Your task to perform on an android device: Add "panasonic triple a" to the cart on ebay.com Image 0: 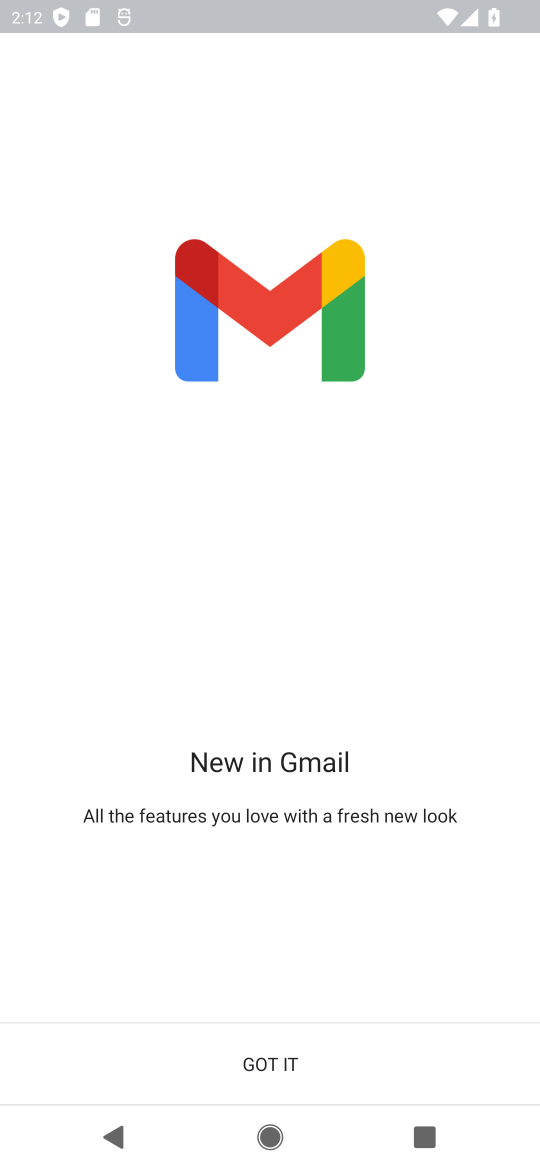
Step 0: press home button
Your task to perform on an android device: Add "panasonic triple a" to the cart on ebay.com Image 1: 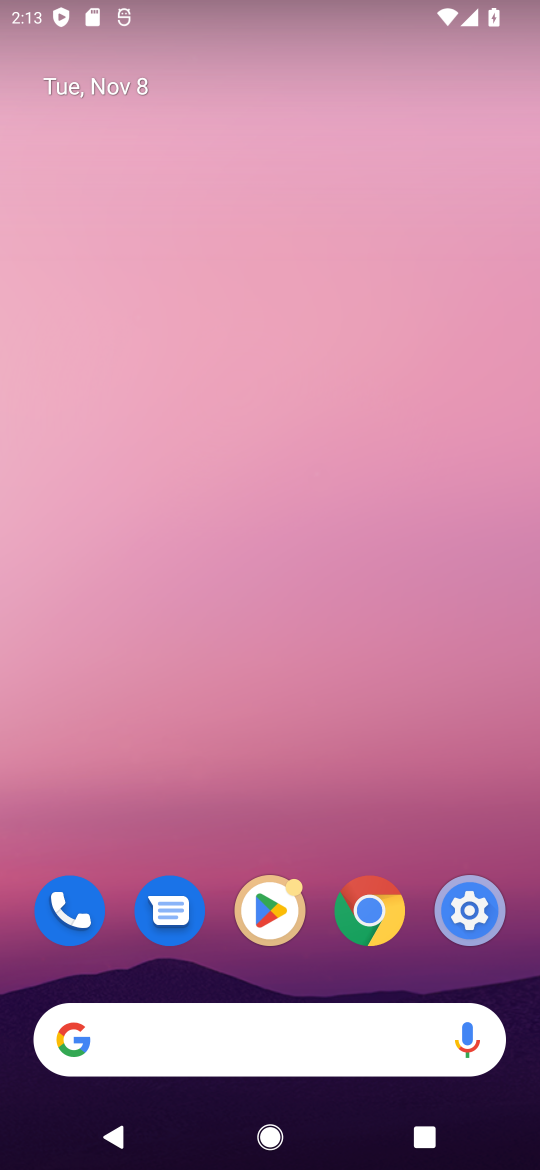
Step 1: drag from (324, 993) to (390, 96)
Your task to perform on an android device: Add "panasonic triple a" to the cart on ebay.com Image 2: 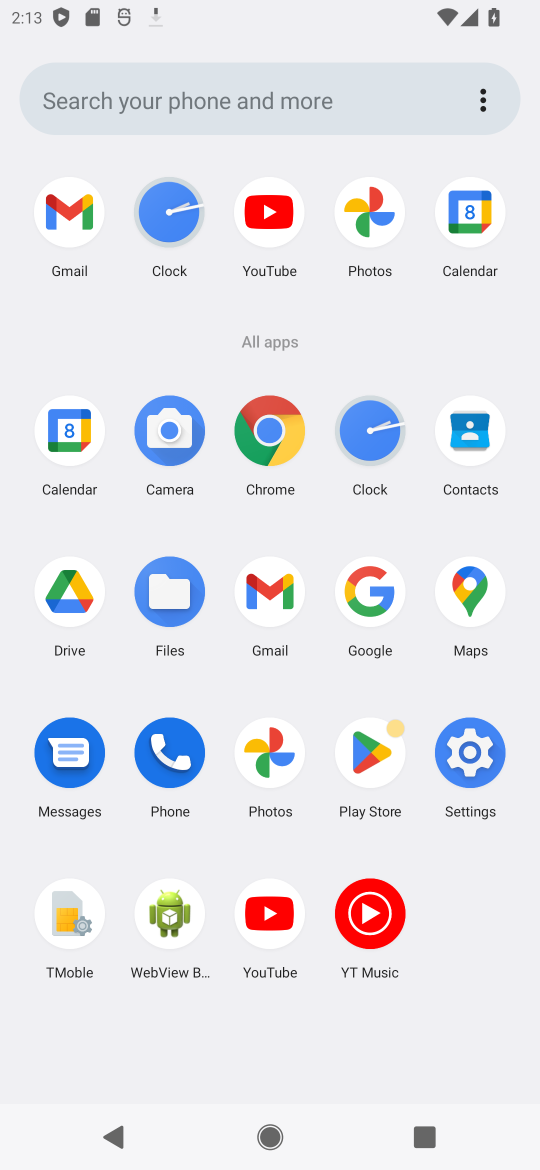
Step 2: click (282, 420)
Your task to perform on an android device: Add "panasonic triple a" to the cart on ebay.com Image 3: 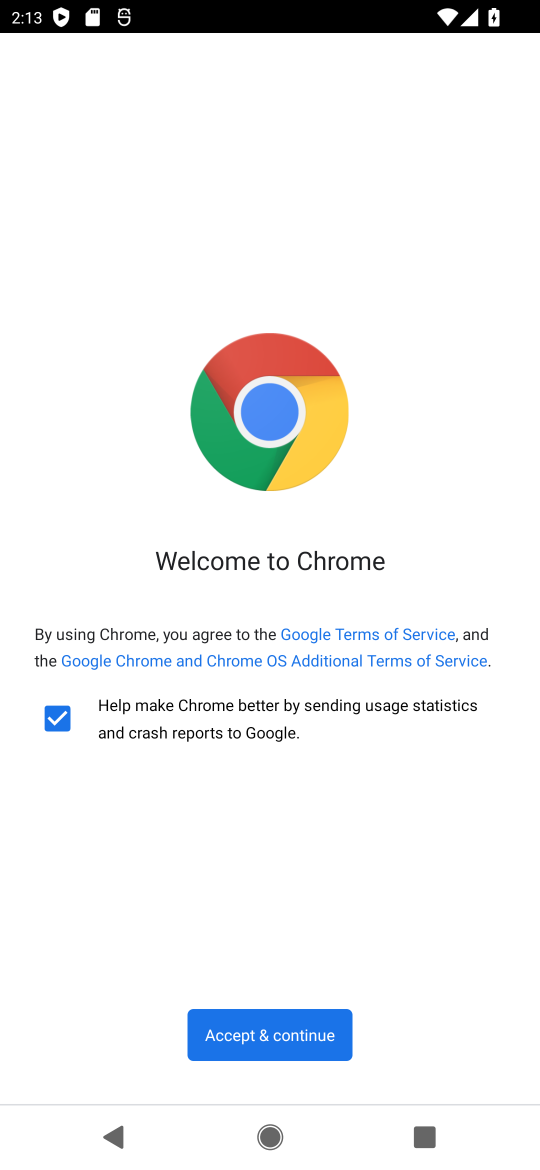
Step 3: click (308, 1021)
Your task to perform on an android device: Add "panasonic triple a" to the cart on ebay.com Image 4: 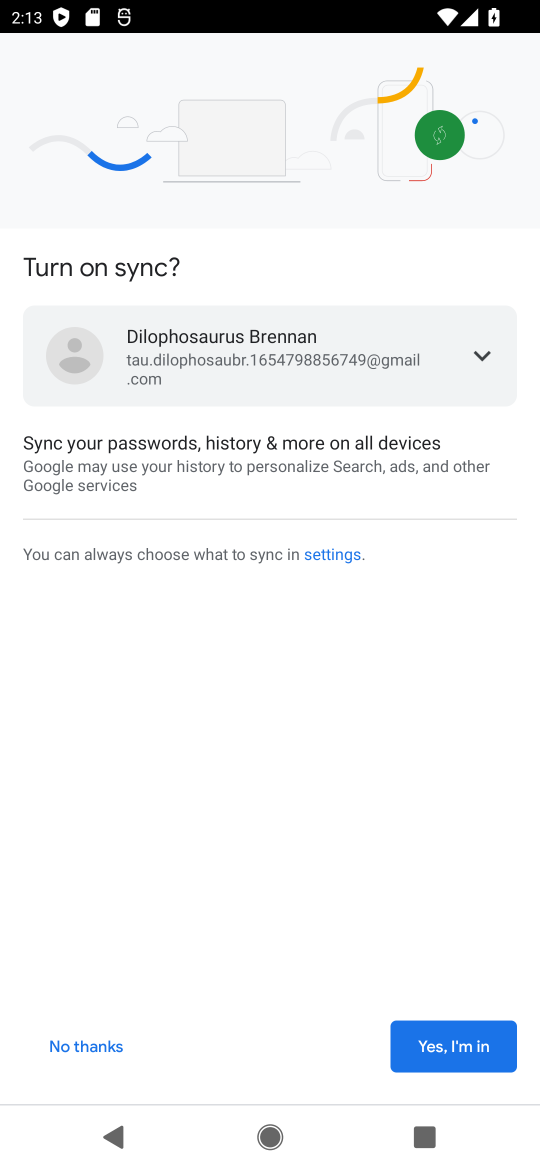
Step 4: click (447, 1033)
Your task to perform on an android device: Add "panasonic triple a" to the cart on ebay.com Image 5: 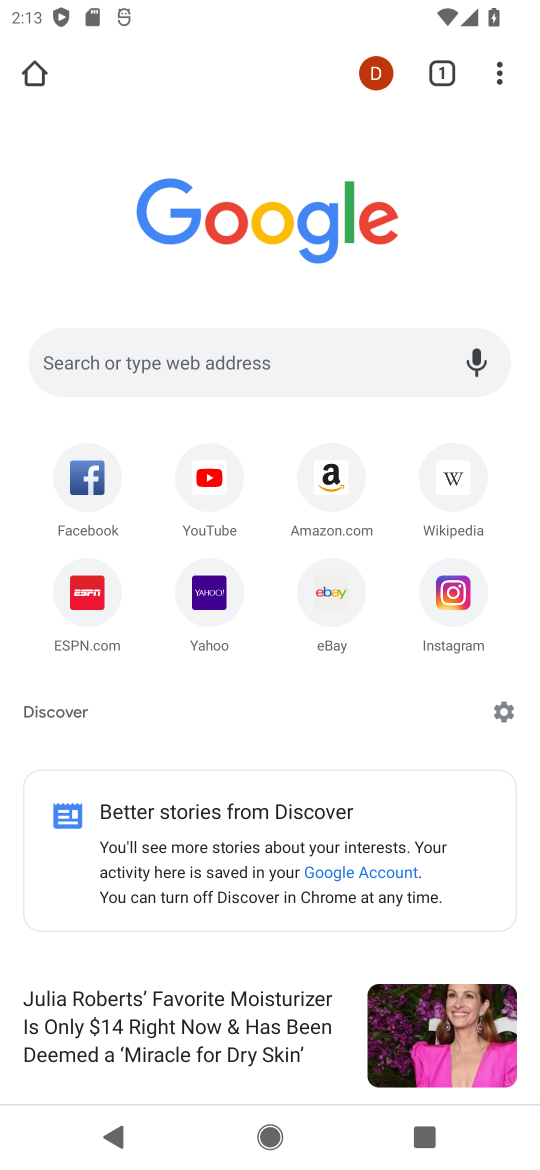
Step 5: click (247, 347)
Your task to perform on an android device: Add "panasonic triple a" to the cart on ebay.com Image 6: 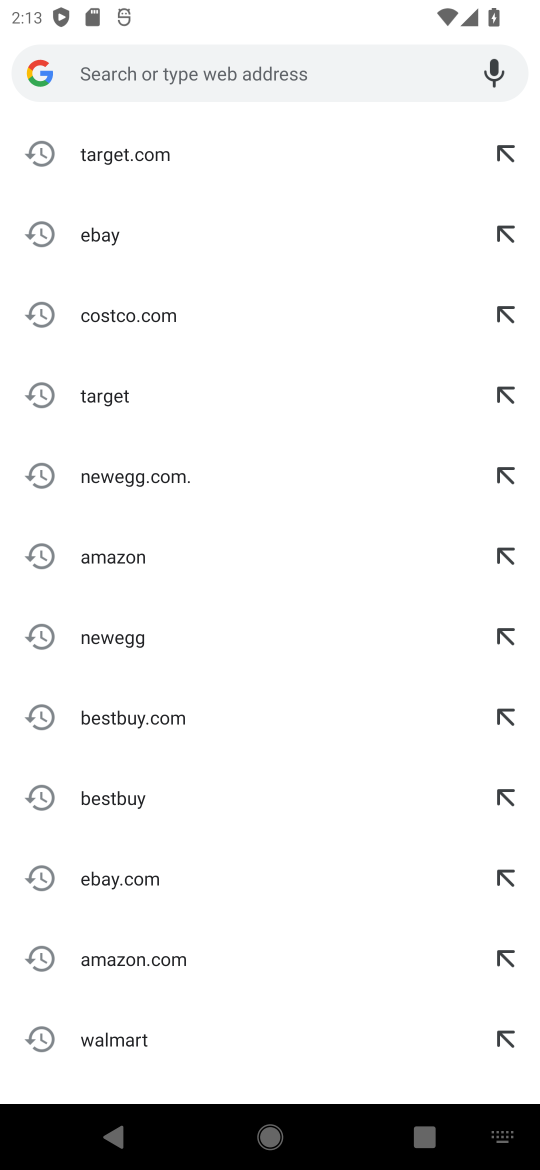
Step 6: type "ebay.com"
Your task to perform on an android device: Add "panasonic triple a" to the cart on ebay.com Image 7: 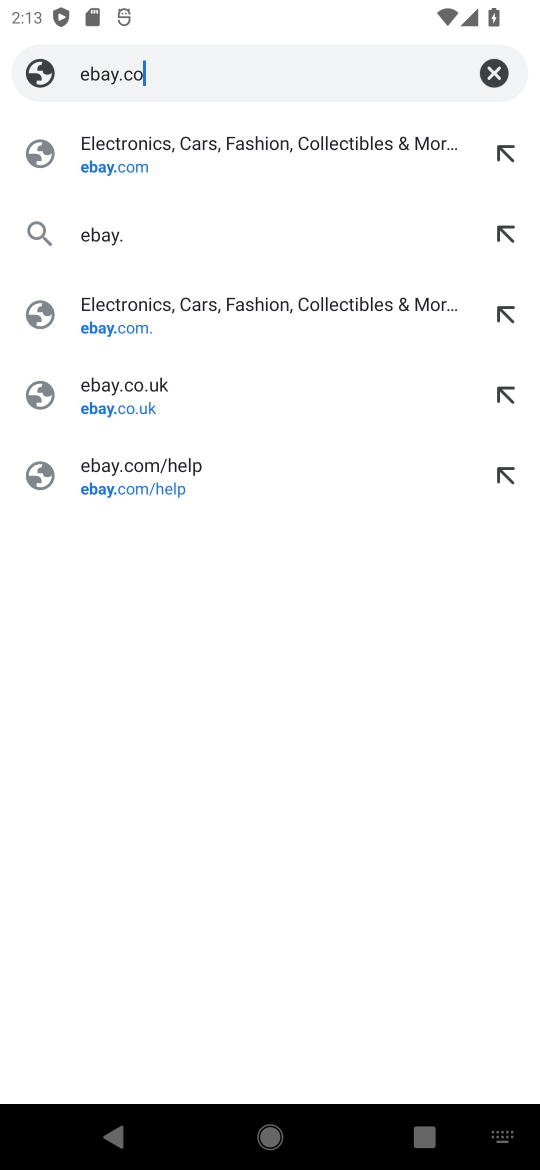
Step 7: type ""
Your task to perform on an android device: Add "panasonic triple a" to the cart on ebay.com Image 8: 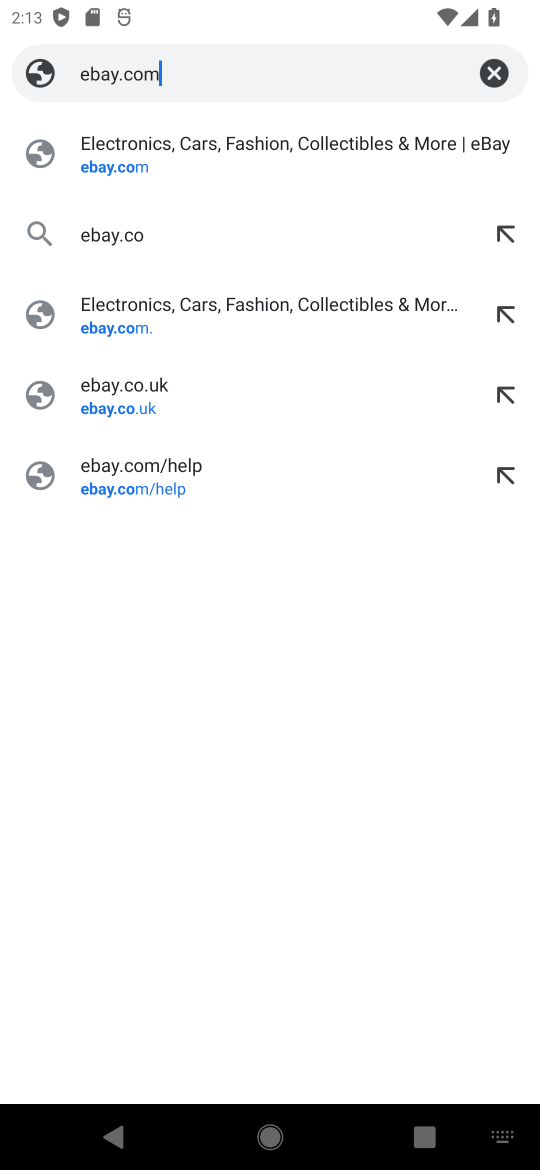
Step 8: press enter
Your task to perform on an android device: Add "panasonic triple a" to the cart on ebay.com Image 9: 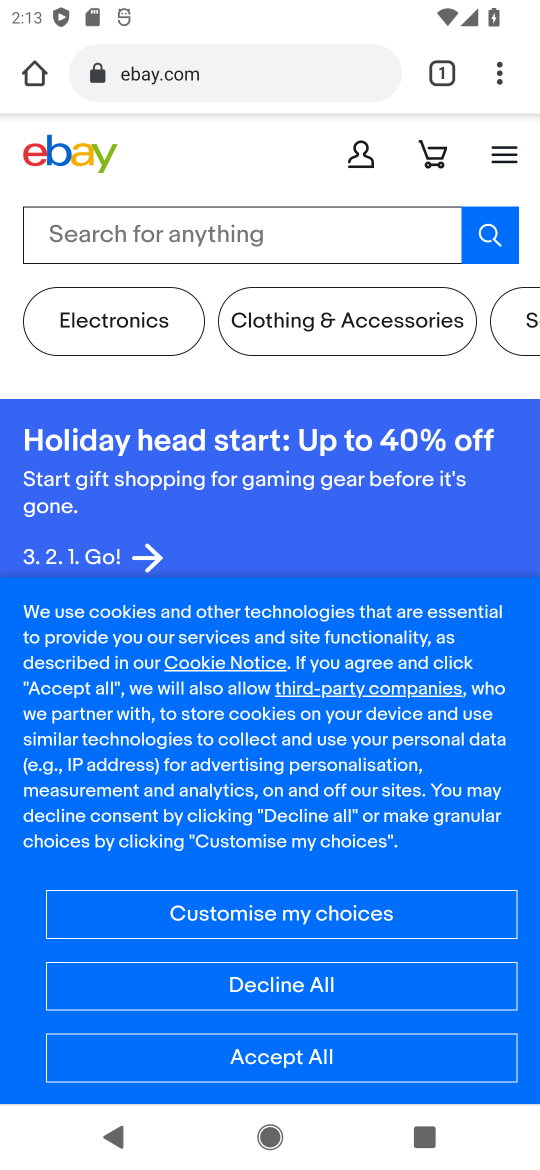
Step 9: click (237, 238)
Your task to perform on an android device: Add "panasonic triple a" to the cart on ebay.com Image 10: 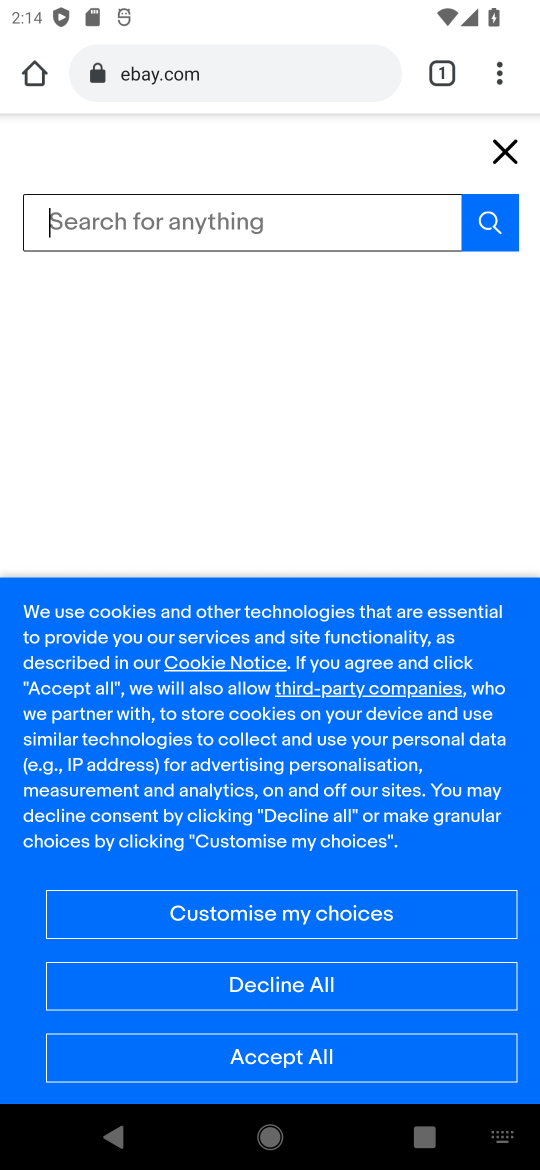
Step 10: type "panasonic triple"
Your task to perform on an android device: Add "panasonic triple a" to the cart on ebay.com Image 11: 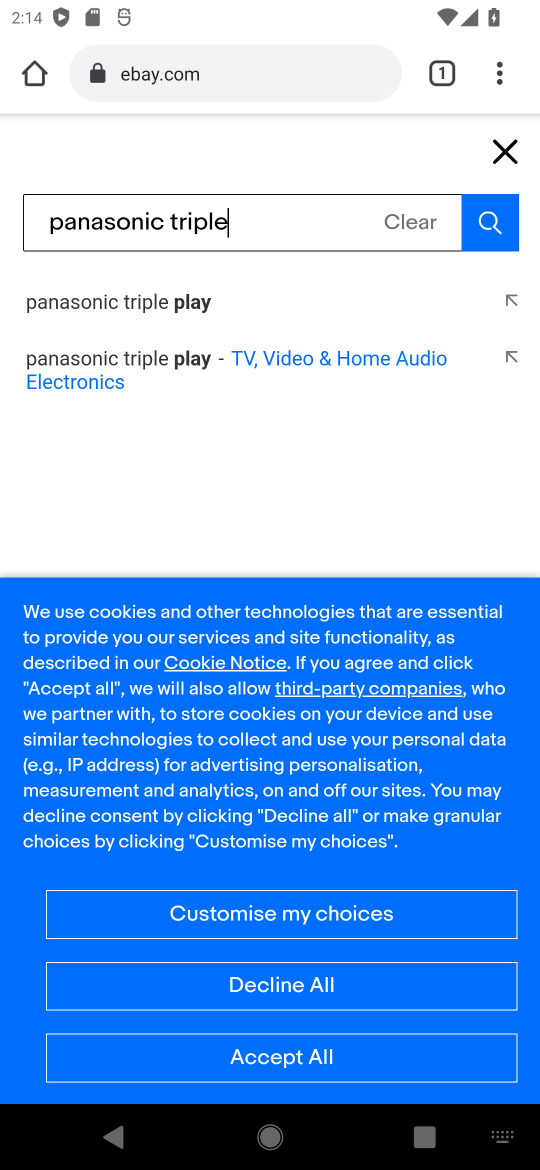
Step 11: press enter
Your task to perform on an android device: Add "panasonic triple a" to the cart on ebay.com Image 12: 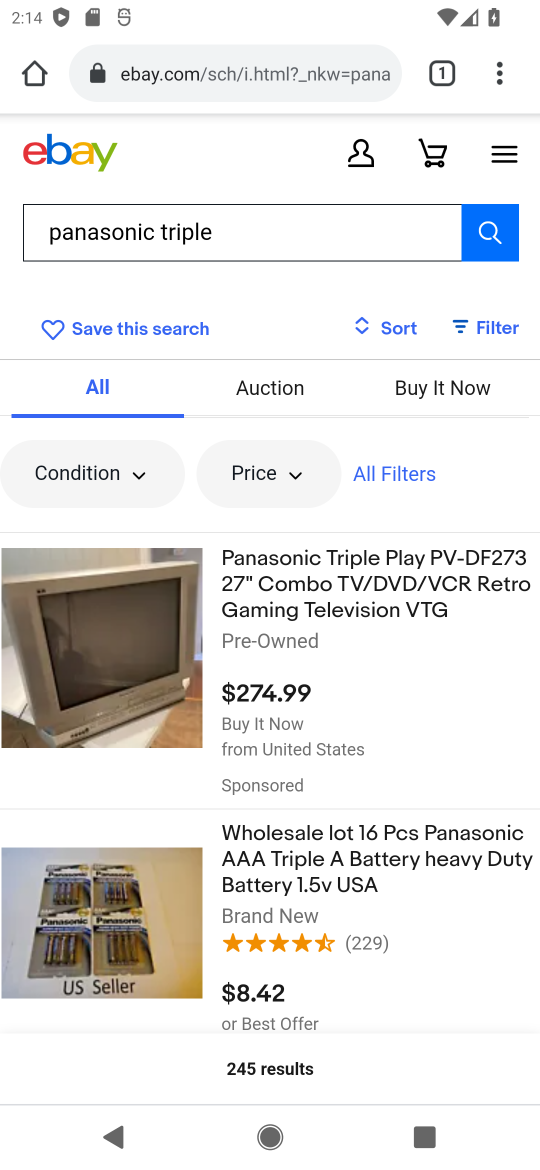
Step 12: drag from (413, 889) to (436, 262)
Your task to perform on an android device: Add "panasonic triple a" to the cart on ebay.com Image 13: 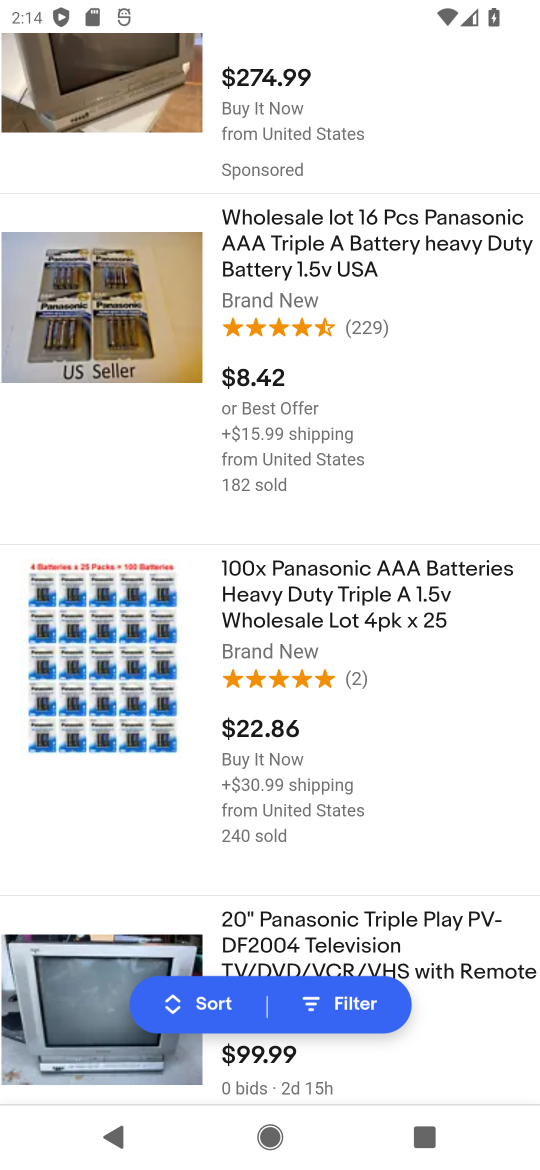
Step 13: click (149, 300)
Your task to perform on an android device: Add "panasonic triple a" to the cart on ebay.com Image 14: 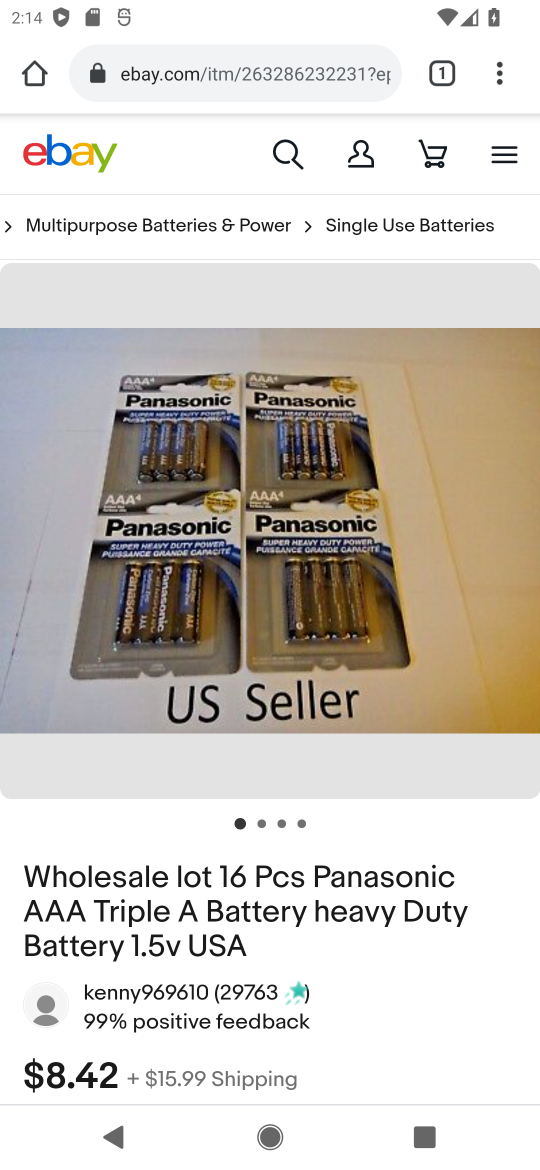
Step 14: drag from (256, 751) to (263, 239)
Your task to perform on an android device: Add "panasonic triple a" to the cart on ebay.com Image 15: 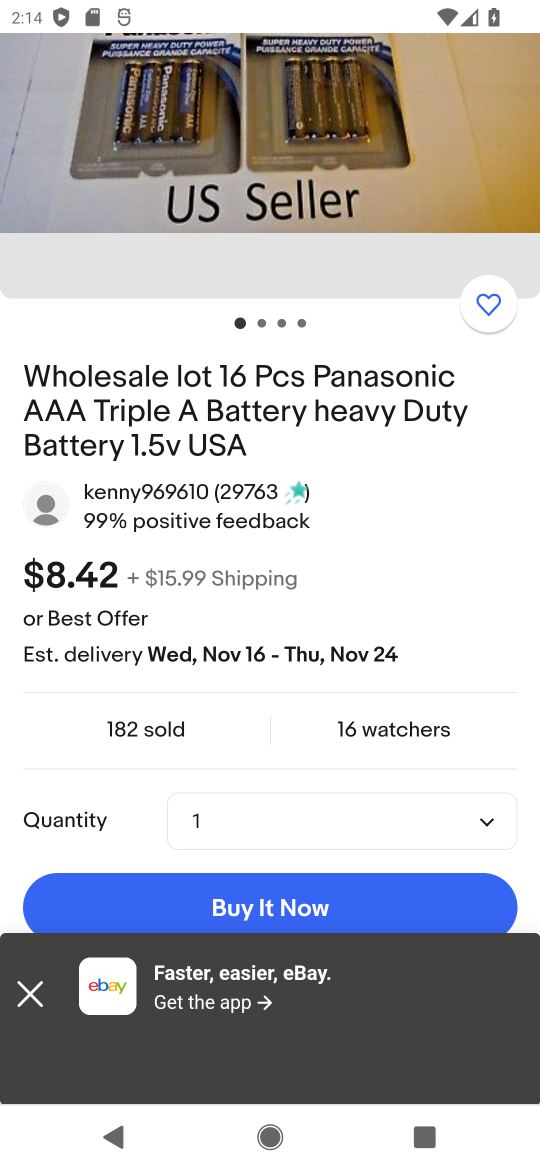
Step 15: drag from (356, 771) to (379, 375)
Your task to perform on an android device: Add "panasonic triple a" to the cart on ebay.com Image 16: 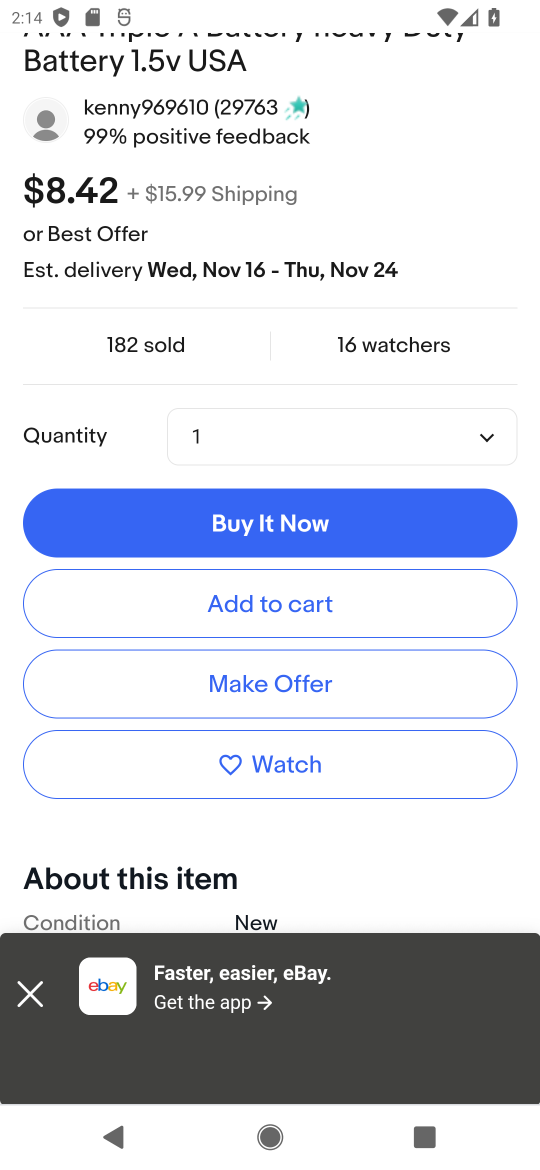
Step 16: click (326, 599)
Your task to perform on an android device: Add "panasonic triple a" to the cart on ebay.com Image 17: 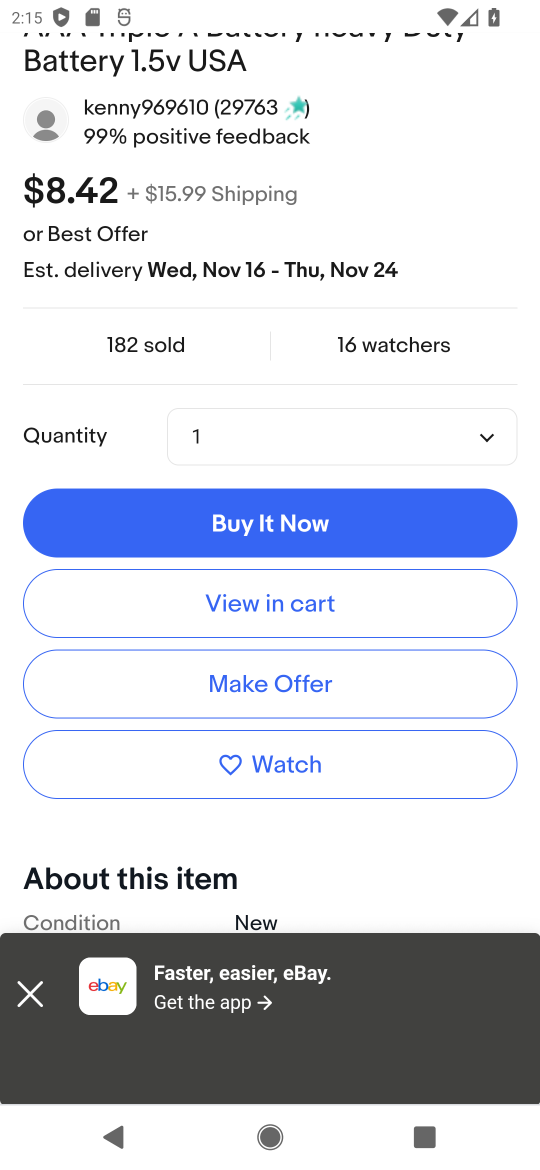
Step 17: task complete